Your task to perform on an android device: Clear the cart on amazon.com. Add alienware area 51 to the cart on amazon.com Image 0: 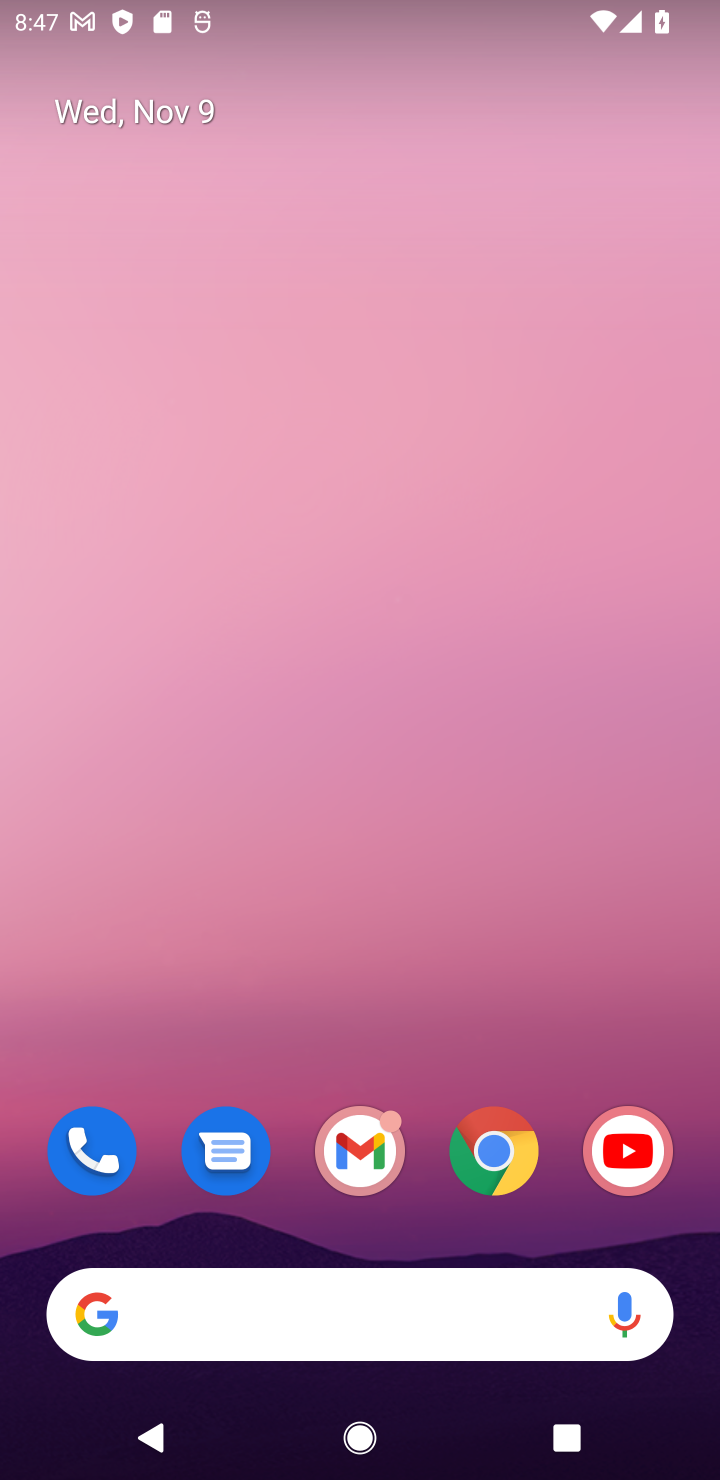
Step 0: click (495, 1170)
Your task to perform on an android device: Clear the cart on amazon.com. Add alienware area 51 to the cart on amazon.com Image 1: 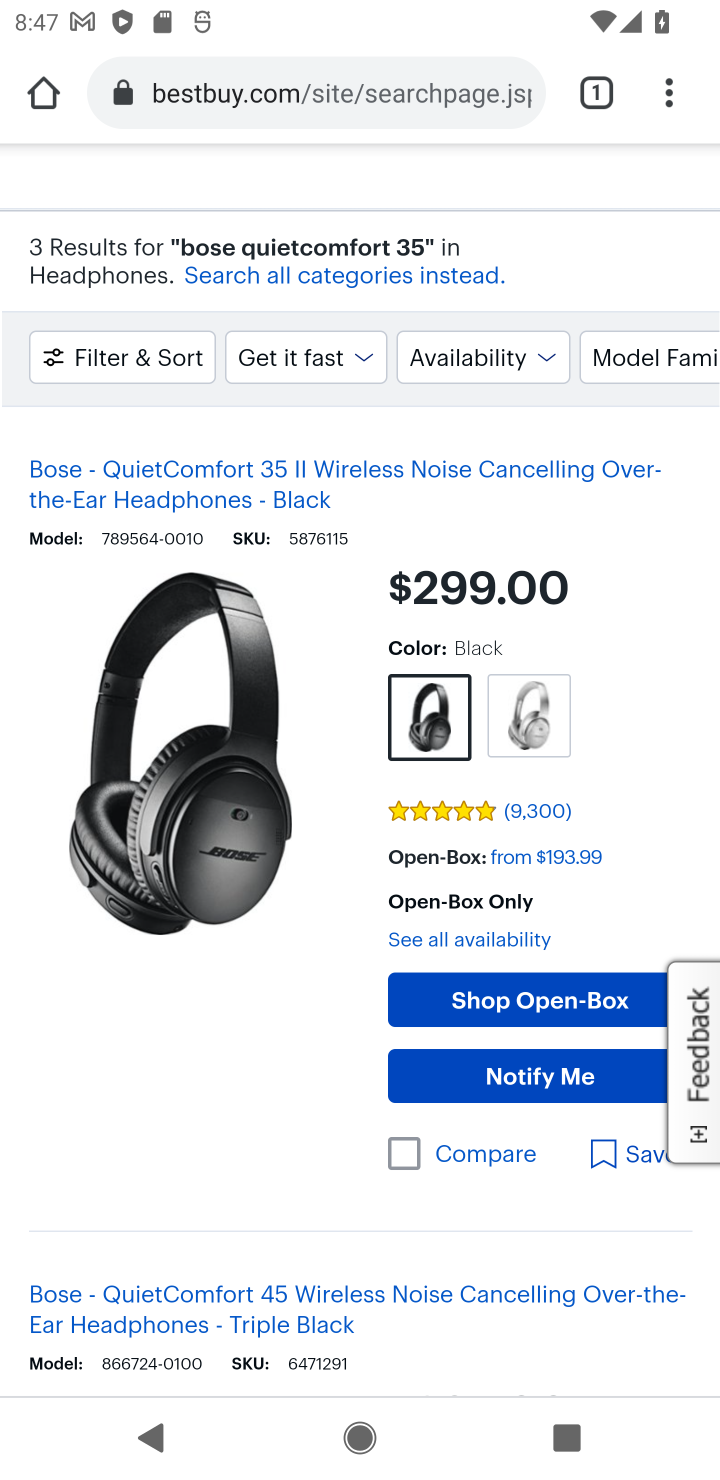
Step 1: click (293, 103)
Your task to perform on an android device: Clear the cart on amazon.com. Add alienware area 51 to the cart on amazon.com Image 2: 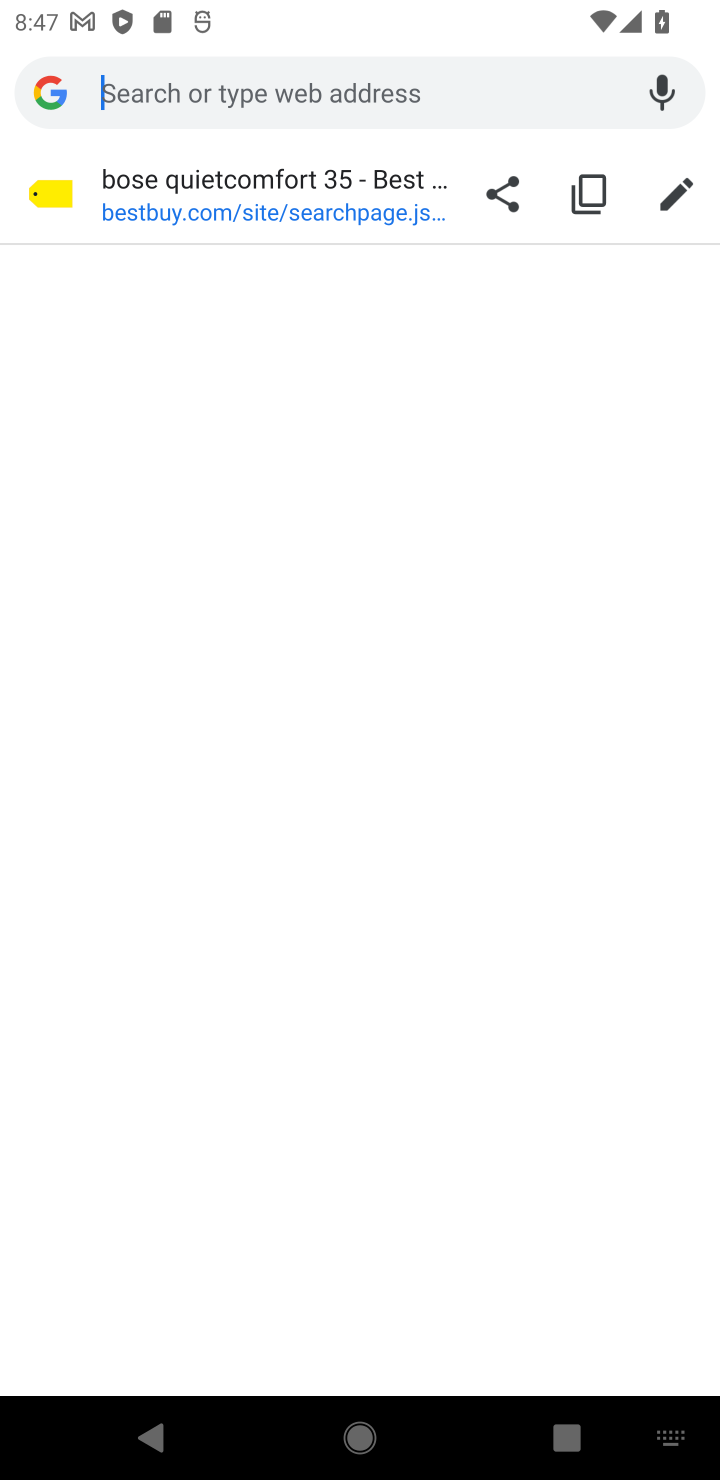
Step 2: type "amazon.com"
Your task to perform on an android device: Clear the cart on amazon.com. Add alienware area 51 to the cart on amazon.com Image 3: 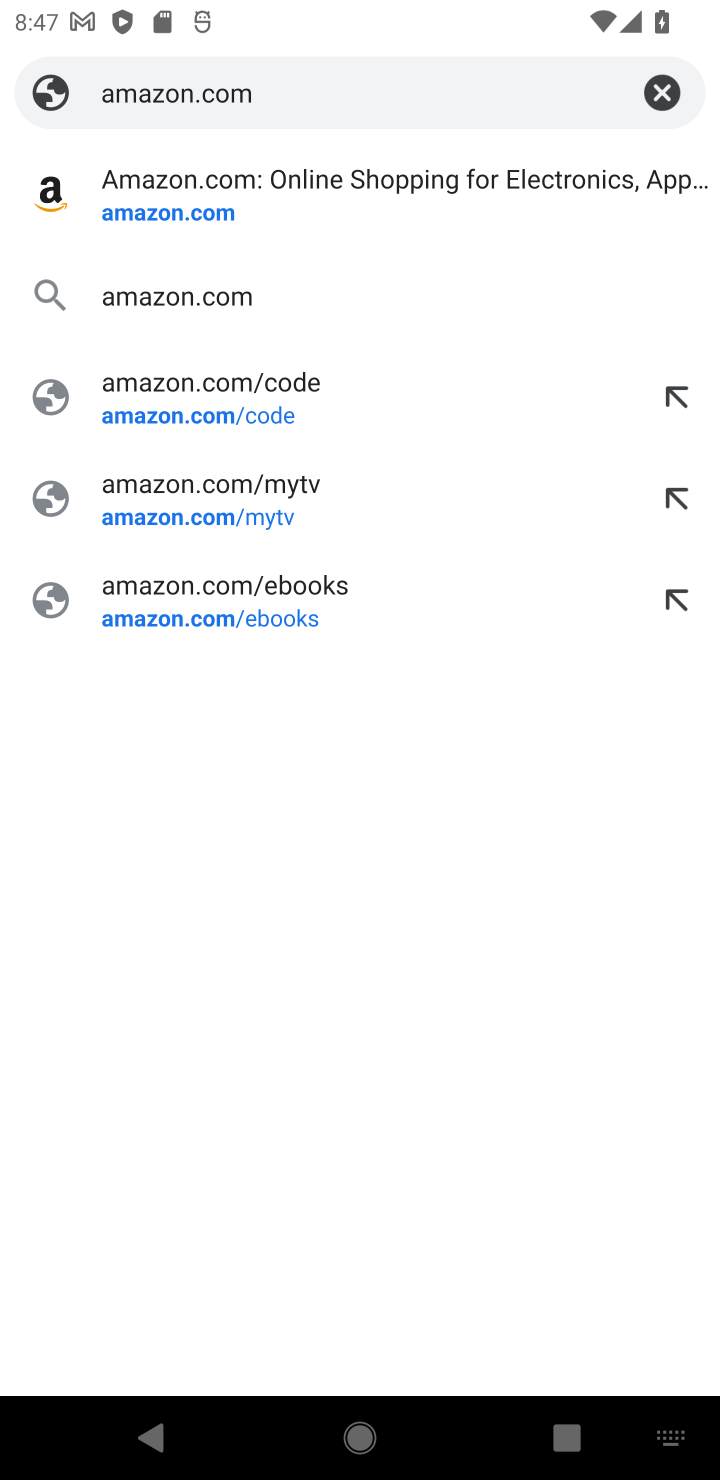
Step 3: press enter
Your task to perform on an android device: Clear the cart on amazon.com. Add alienware area 51 to the cart on amazon.com Image 4: 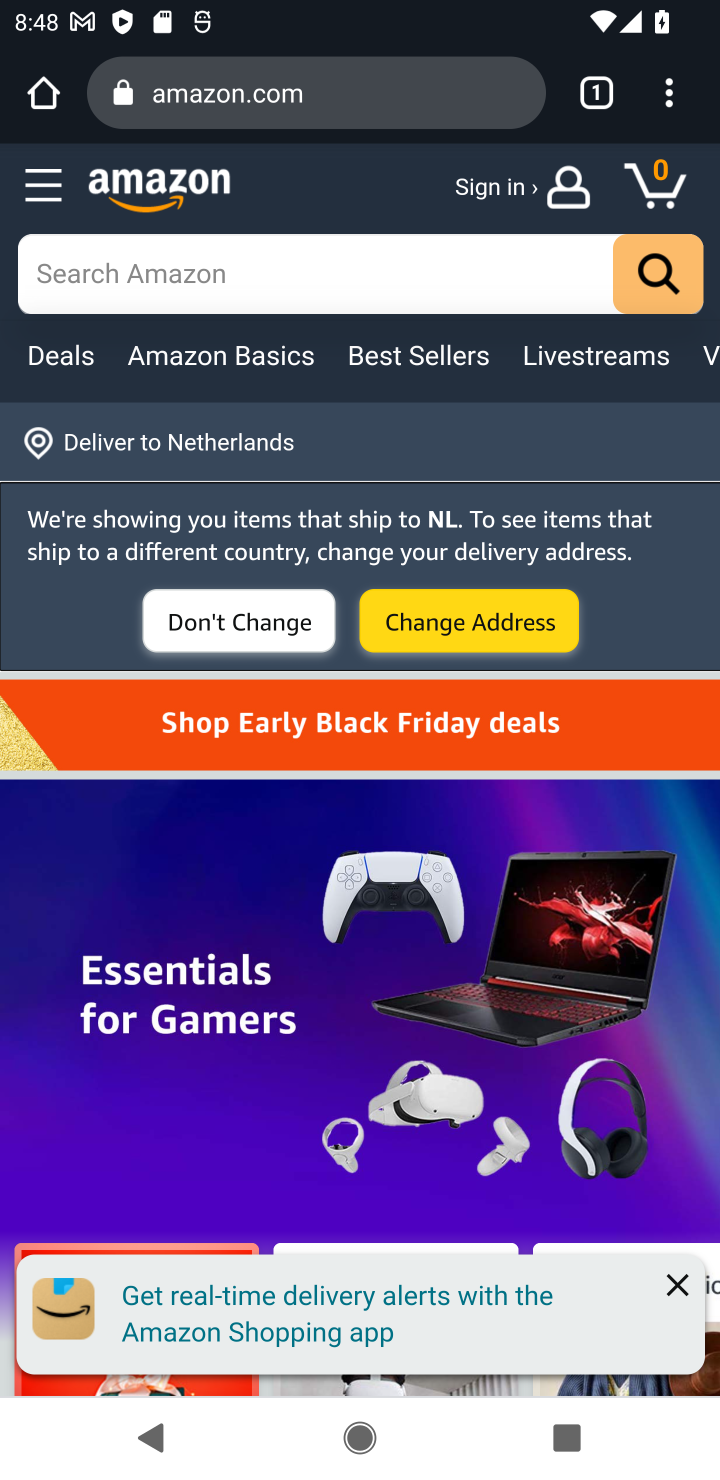
Step 4: click (387, 288)
Your task to perform on an android device: Clear the cart on amazon.com. Add alienware area 51 to the cart on amazon.com Image 5: 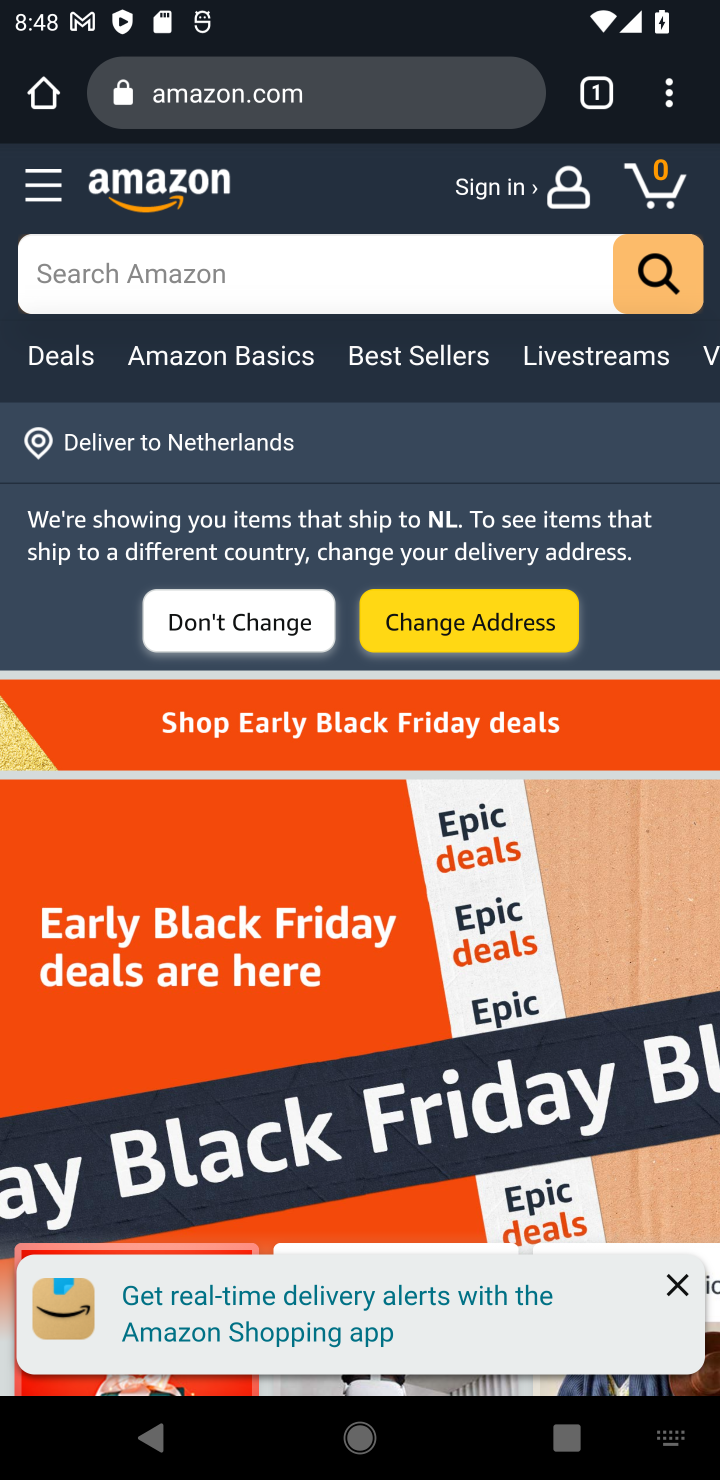
Step 5: press enter
Your task to perform on an android device: Clear the cart on amazon.com. Add alienware area 51 to the cart on amazon.com Image 6: 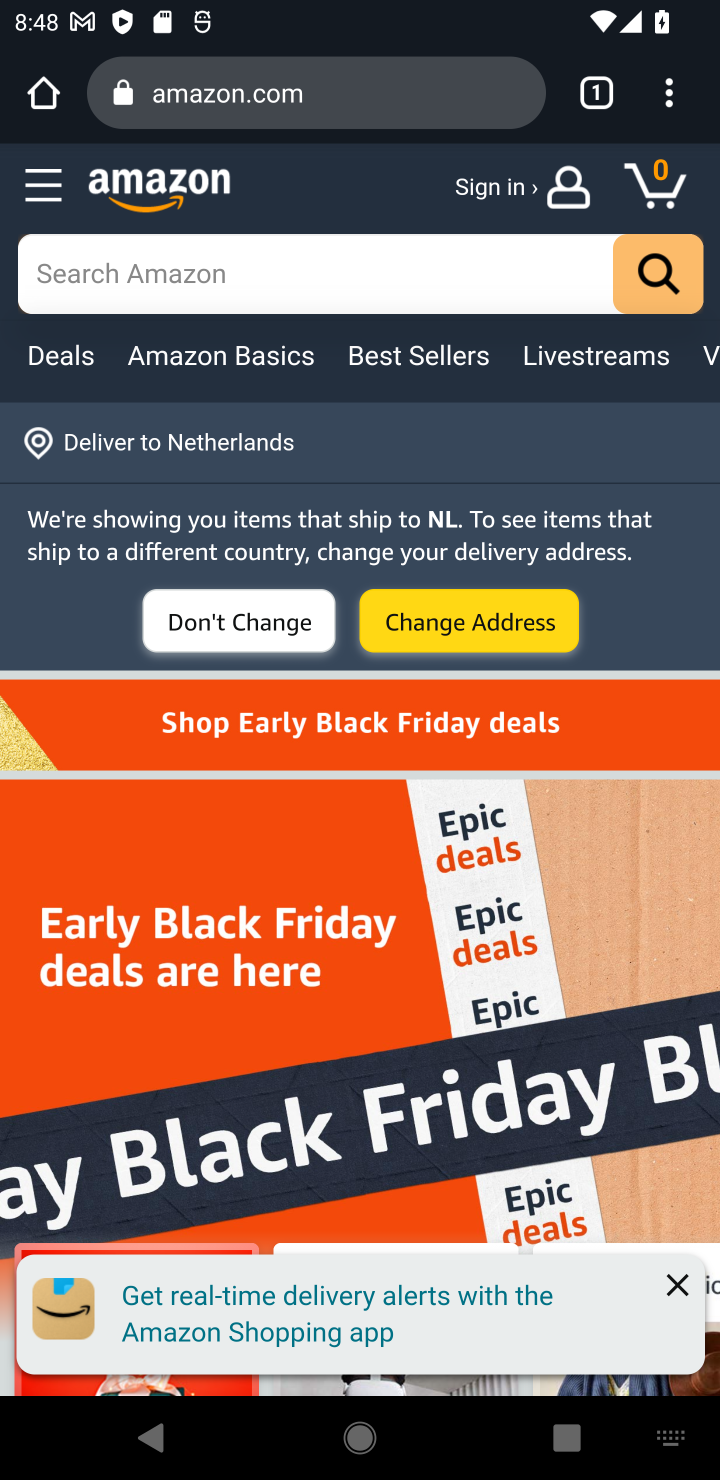
Step 6: type "alienware area 51"
Your task to perform on an android device: Clear the cart on amazon.com. Add alienware area 51 to the cart on amazon.com Image 7: 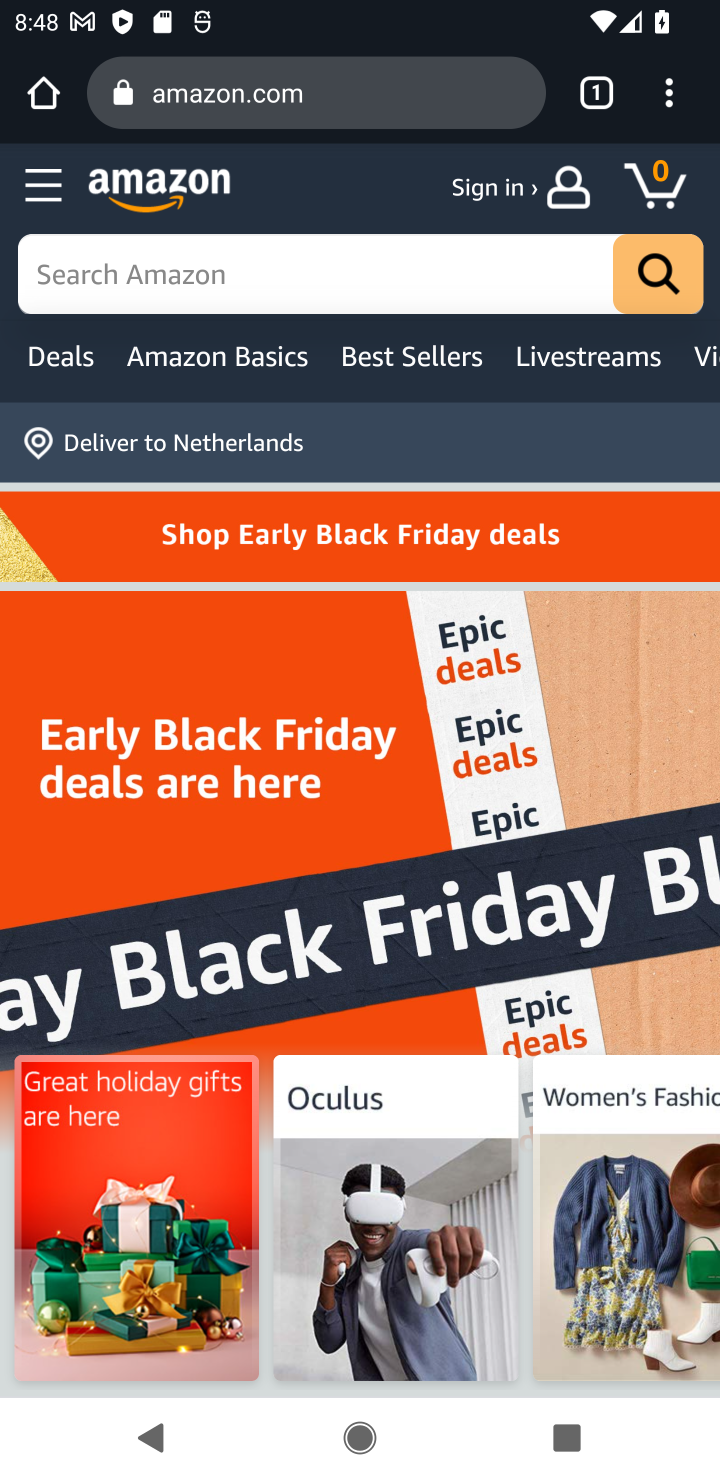
Step 7: click (270, 244)
Your task to perform on an android device: Clear the cart on amazon.com. Add alienware area 51 to the cart on amazon.com Image 8: 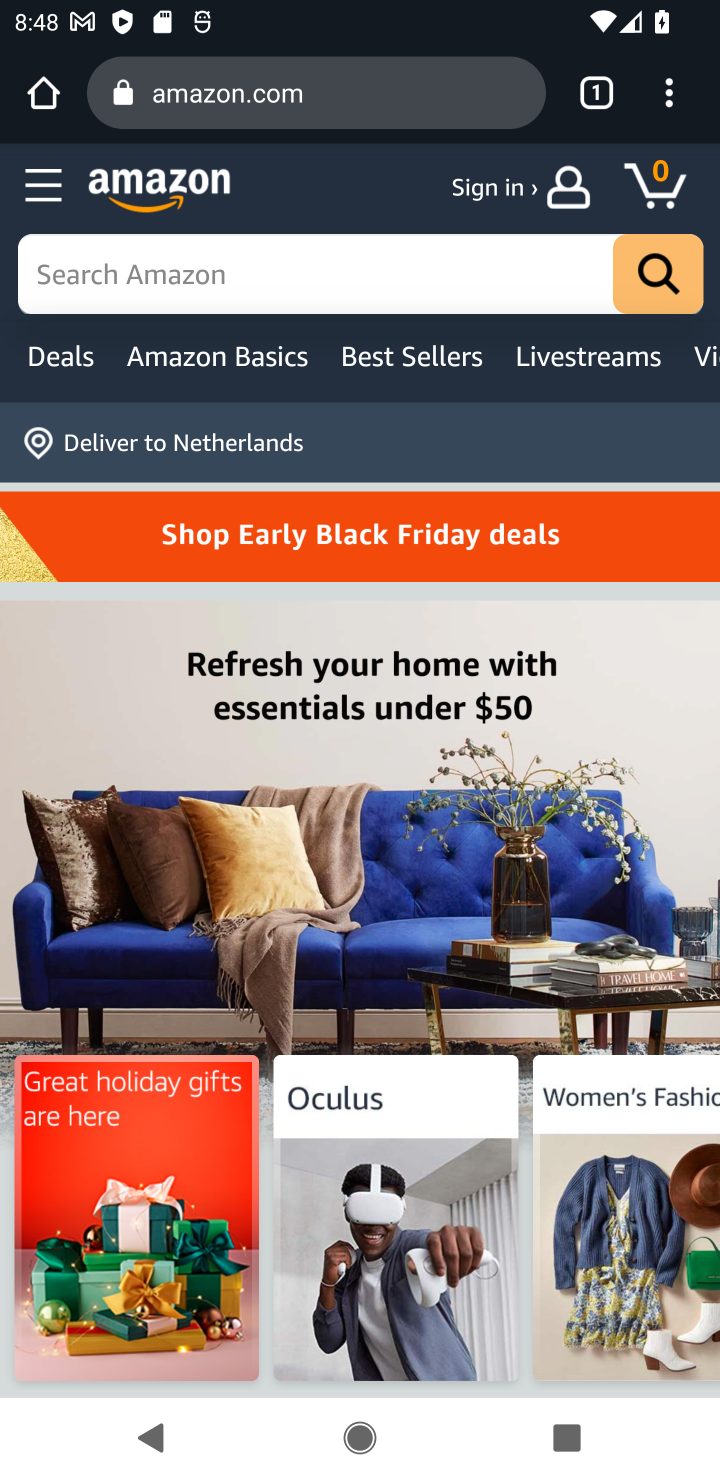
Step 8: click (250, 297)
Your task to perform on an android device: Clear the cart on amazon.com. Add alienware area 51 to the cart on amazon.com Image 9: 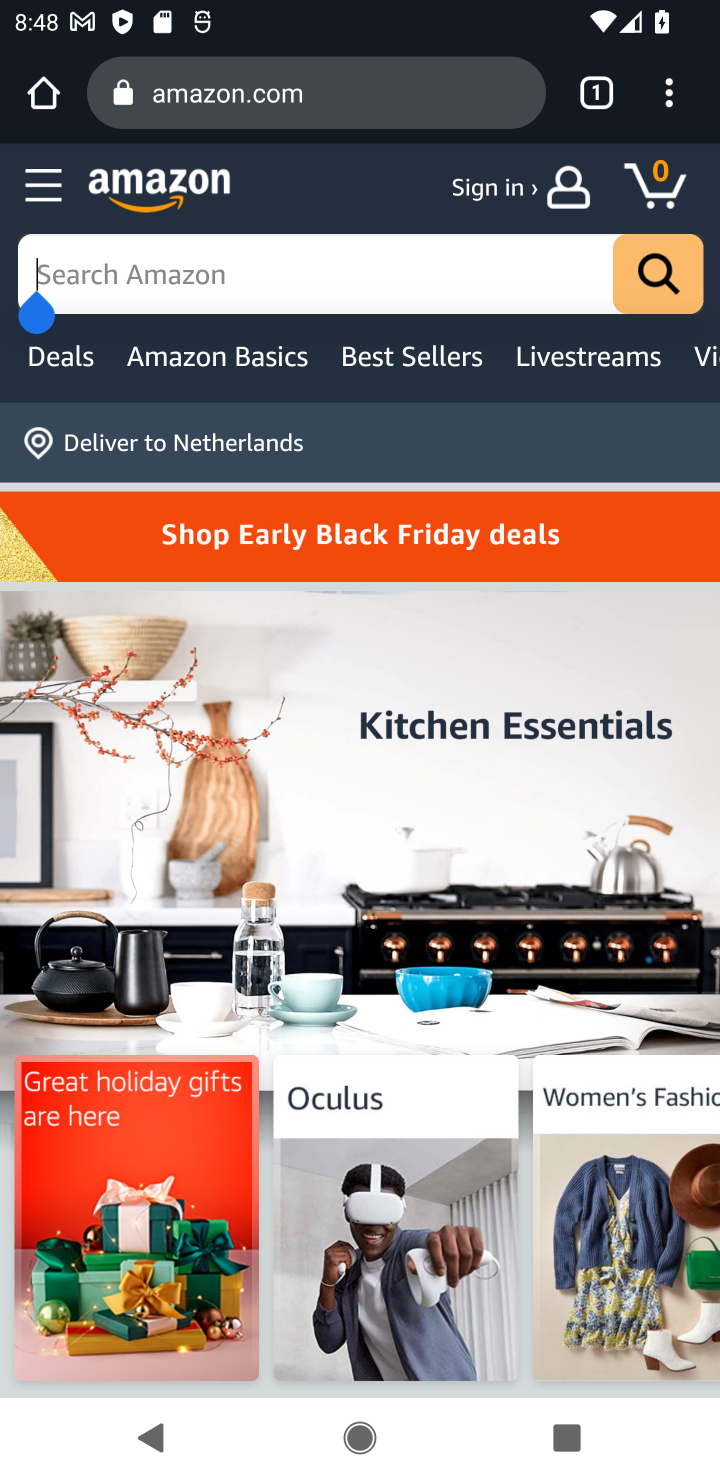
Step 9: type "alienware area 51"
Your task to perform on an android device: Clear the cart on amazon.com. Add alienware area 51 to the cart on amazon.com Image 10: 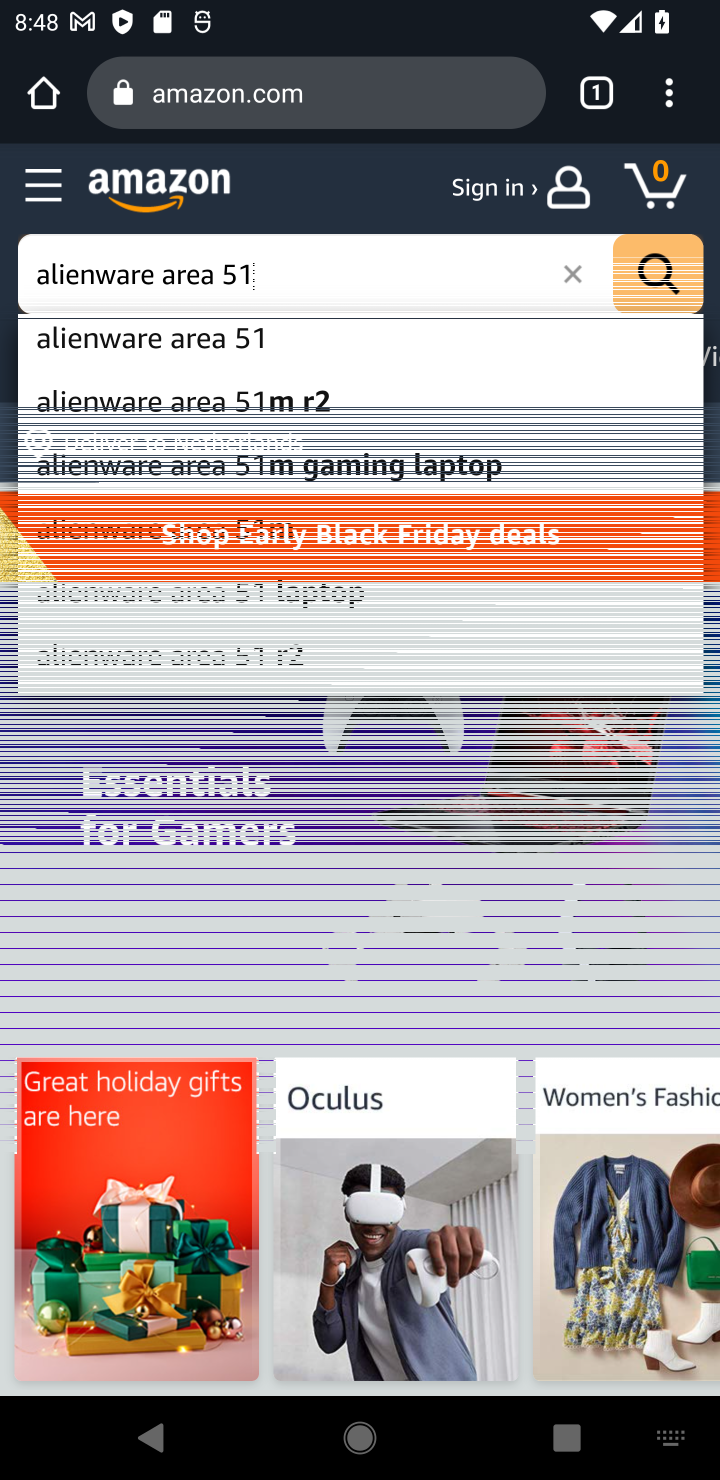
Step 10: press enter
Your task to perform on an android device: Clear the cart on amazon.com. Add alienware area 51 to the cart on amazon.com Image 11: 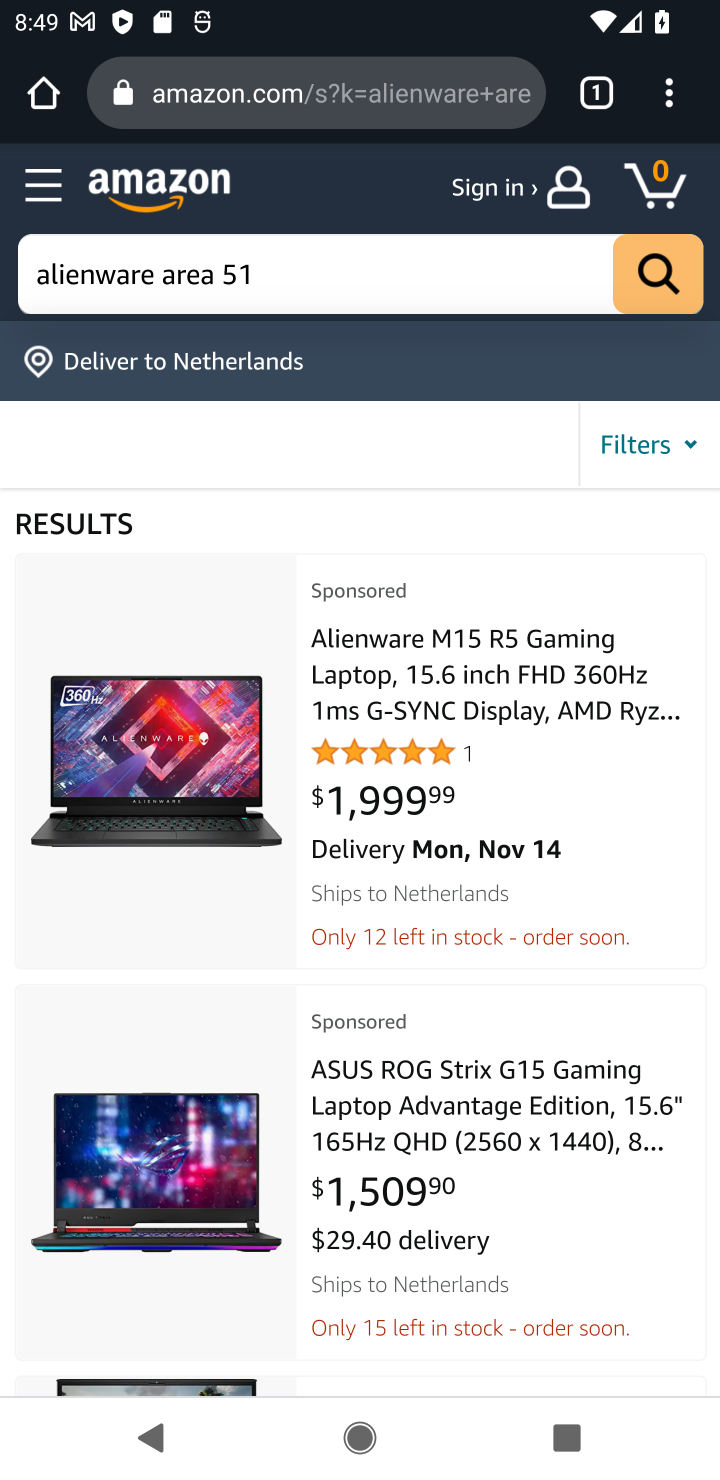
Step 11: drag from (551, 1083) to (566, 736)
Your task to perform on an android device: Clear the cart on amazon.com. Add alienware area 51 to the cart on amazon.com Image 12: 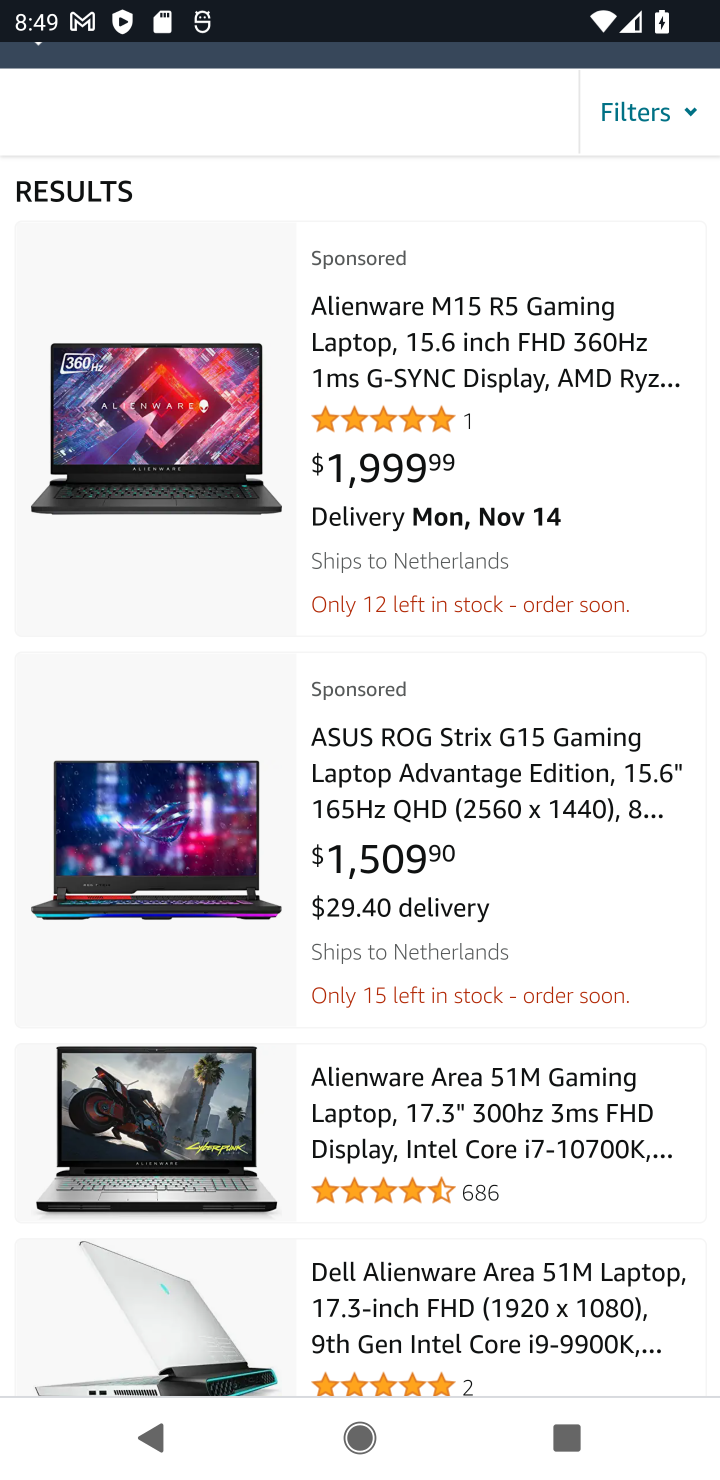
Step 12: click (490, 1126)
Your task to perform on an android device: Clear the cart on amazon.com. Add alienware area 51 to the cart on amazon.com Image 13: 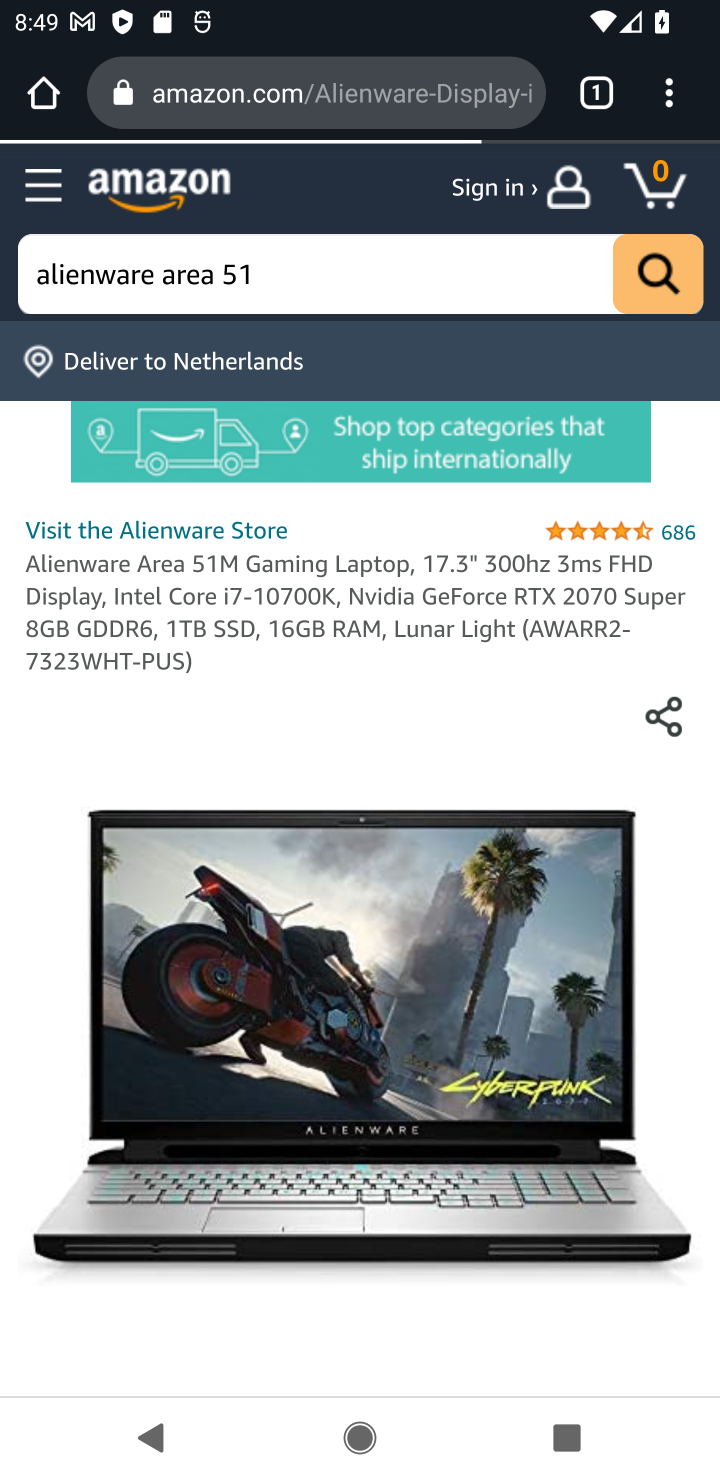
Step 13: task complete